Your task to perform on an android device: turn on improve location accuracy Image 0: 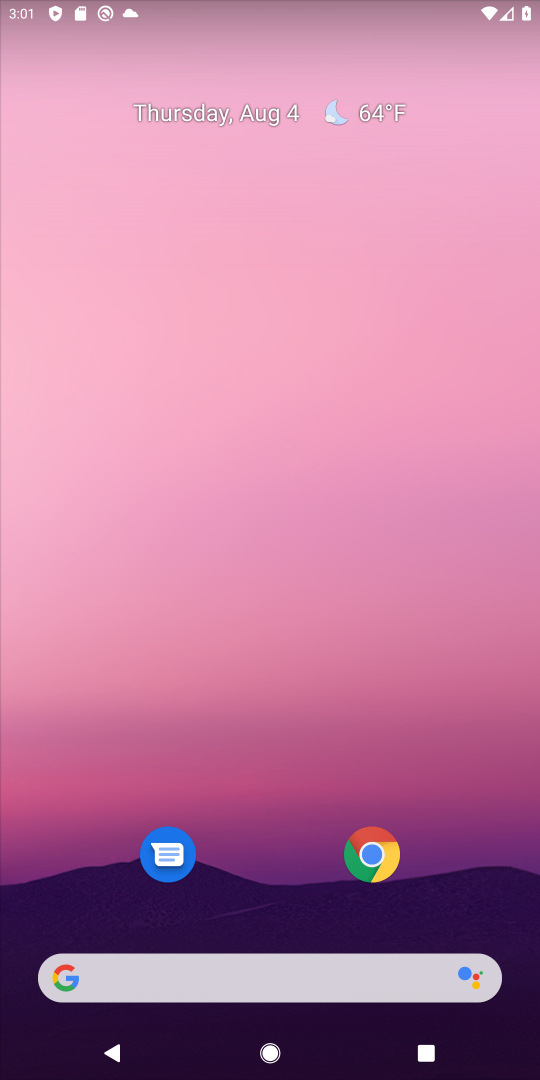
Step 0: drag from (245, 522) to (224, 298)
Your task to perform on an android device: turn on improve location accuracy Image 1: 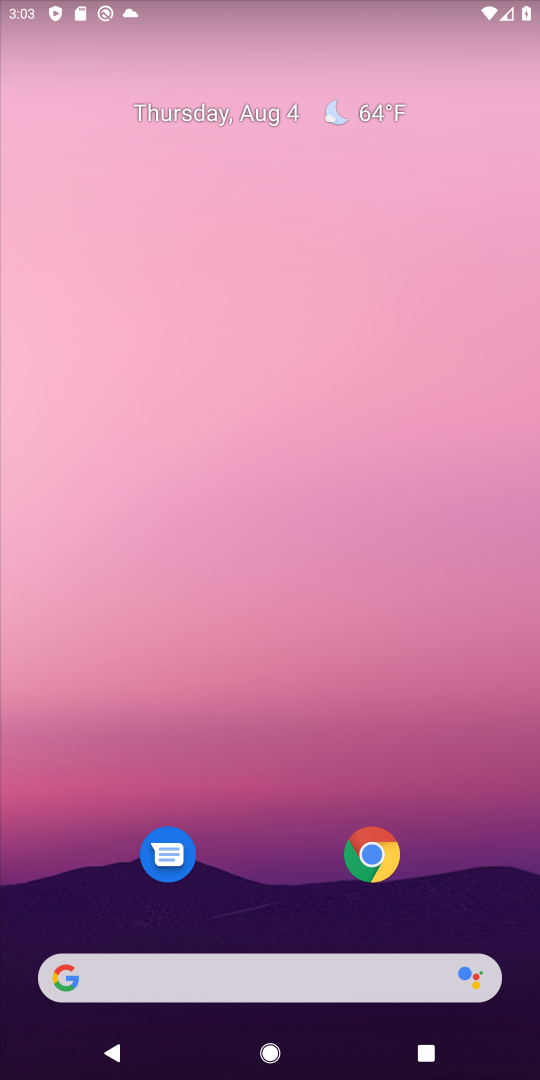
Step 1: drag from (352, 569) to (288, 369)
Your task to perform on an android device: turn on improve location accuracy Image 2: 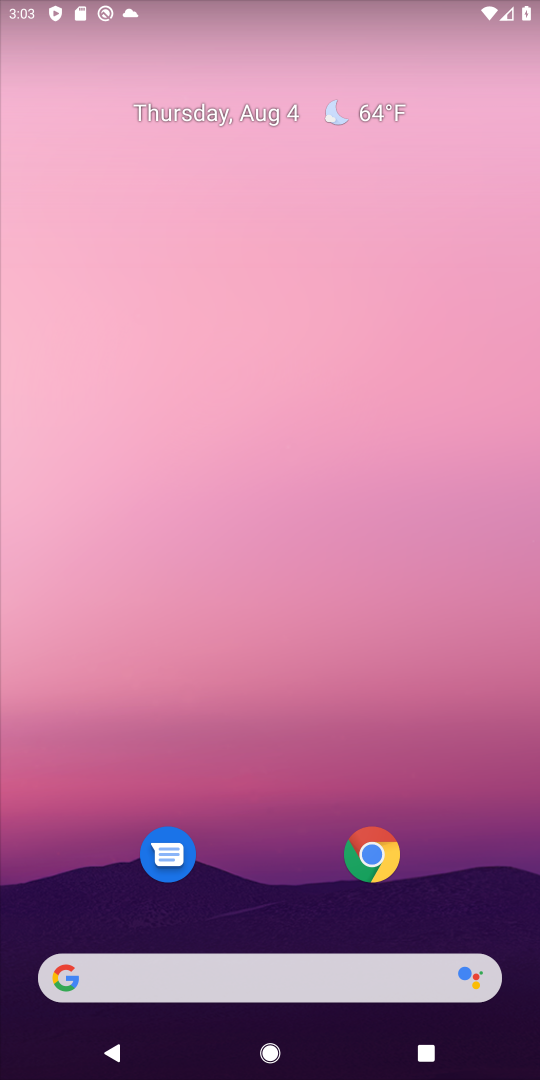
Step 2: drag from (246, 829) to (319, 101)
Your task to perform on an android device: turn on improve location accuracy Image 3: 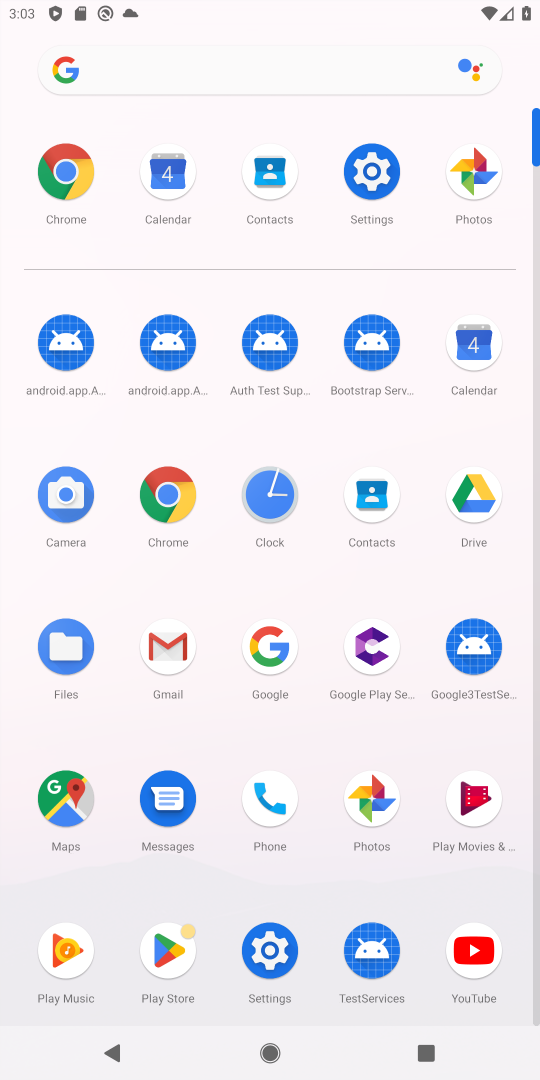
Step 3: click (279, 952)
Your task to perform on an android device: turn on improve location accuracy Image 4: 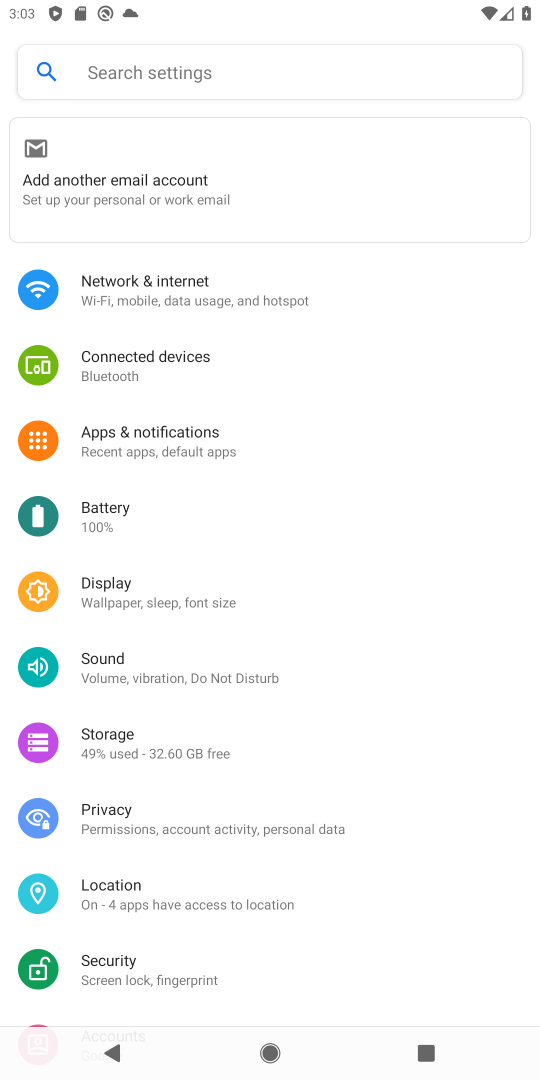
Step 4: click (81, 893)
Your task to perform on an android device: turn on improve location accuracy Image 5: 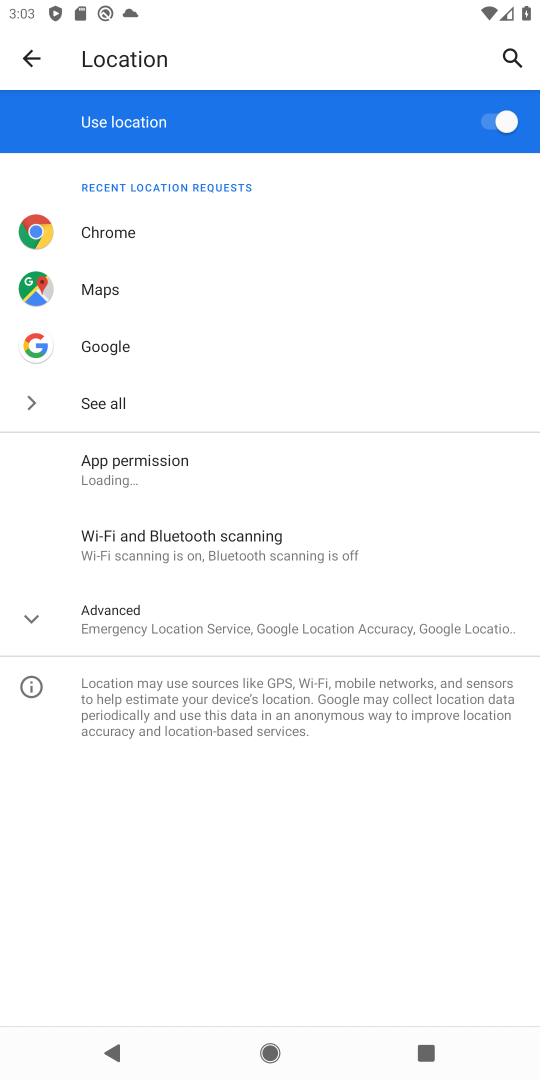
Step 5: task complete